Your task to perform on an android device: Go to display settings Image 0: 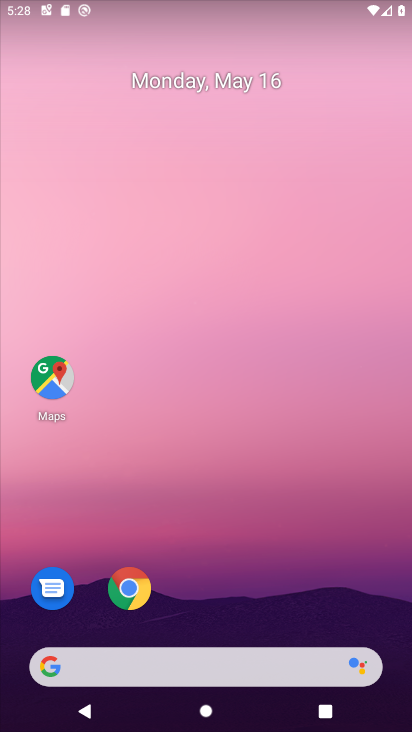
Step 0: drag from (267, 334) to (180, 4)
Your task to perform on an android device: Go to display settings Image 1: 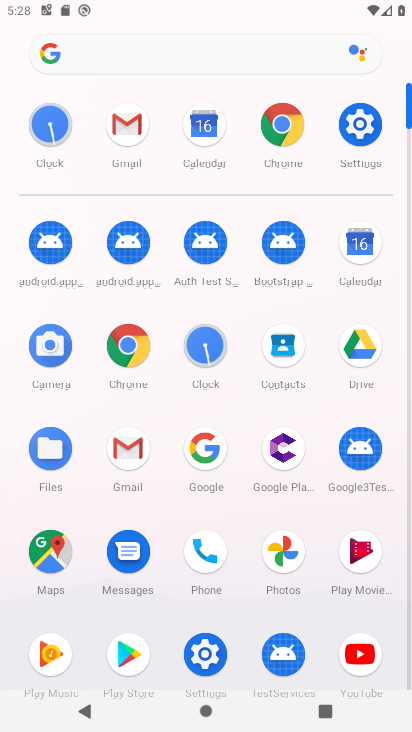
Step 1: click (354, 117)
Your task to perform on an android device: Go to display settings Image 2: 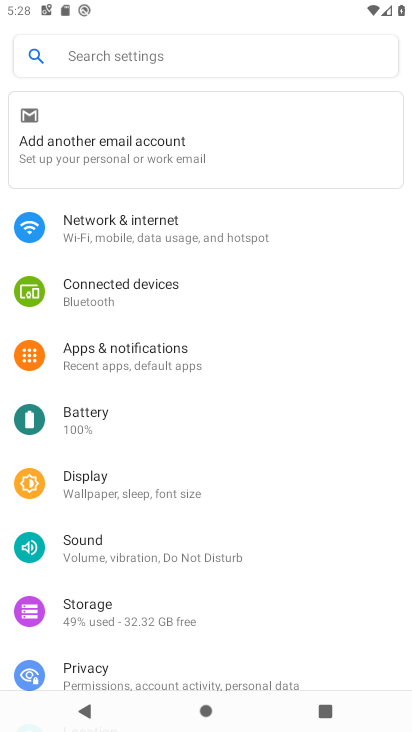
Step 2: click (143, 474)
Your task to perform on an android device: Go to display settings Image 3: 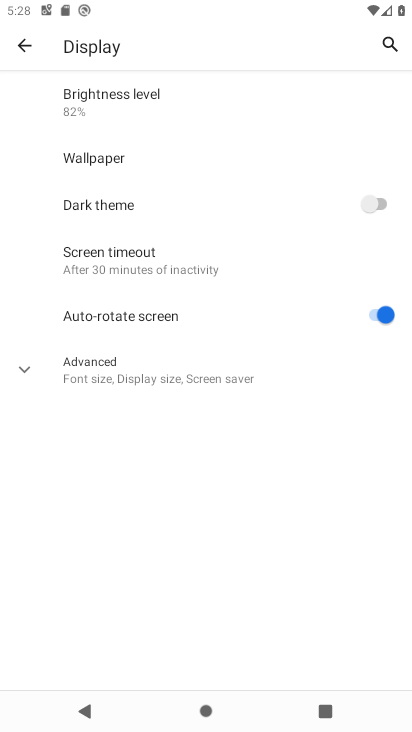
Step 3: task complete